Your task to perform on an android device: turn smart compose on in the gmail app Image 0: 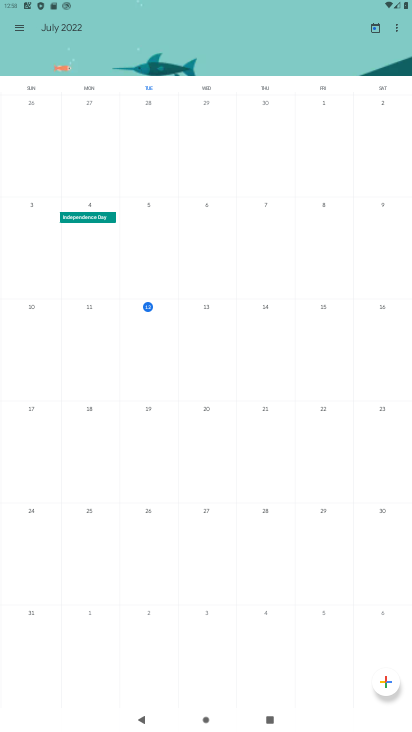
Step 0: press home button
Your task to perform on an android device: turn smart compose on in the gmail app Image 1: 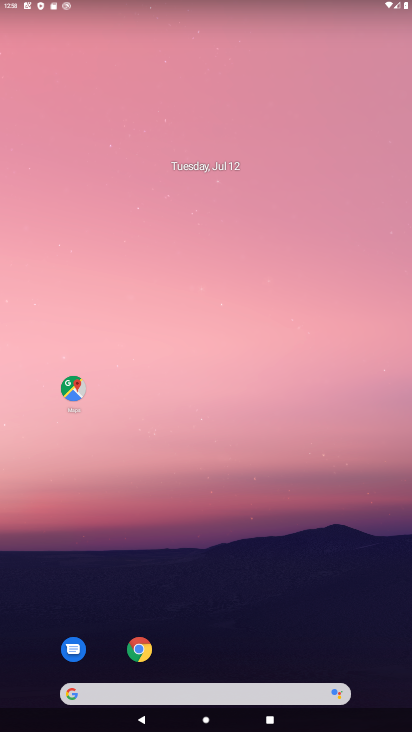
Step 1: drag from (294, 635) to (210, 83)
Your task to perform on an android device: turn smart compose on in the gmail app Image 2: 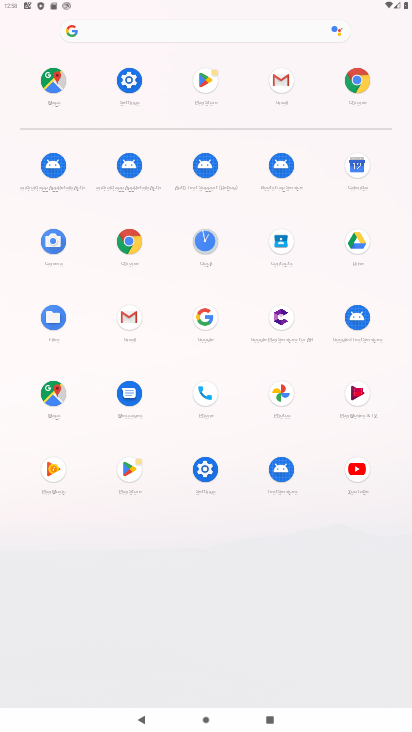
Step 2: click (276, 91)
Your task to perform on an android device: turn smart compose on in the gmail app Image 3: 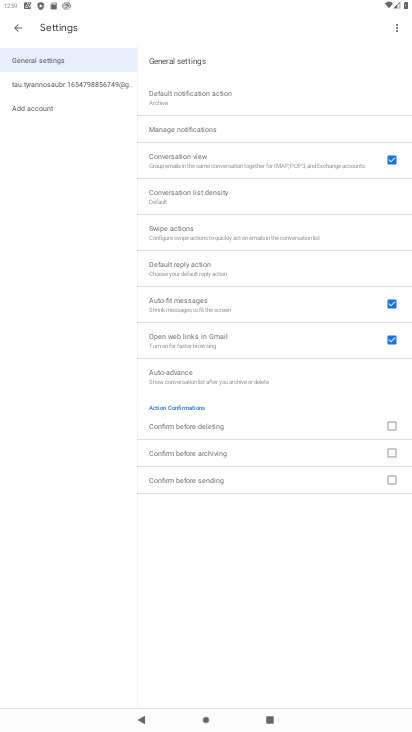
Step 3: click (97, 102)
Your task to perform on an android device: turn smart compose on in the gmail app Image 4: 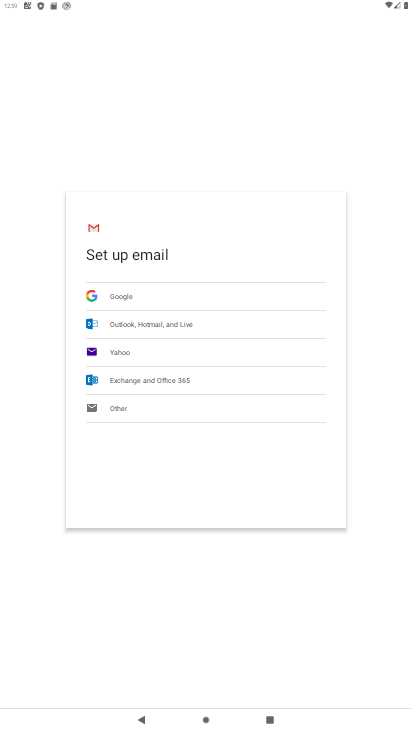
Step 4: press back button
Your task to perform on an android device: turn smart compose on in the gmail app Image 5: 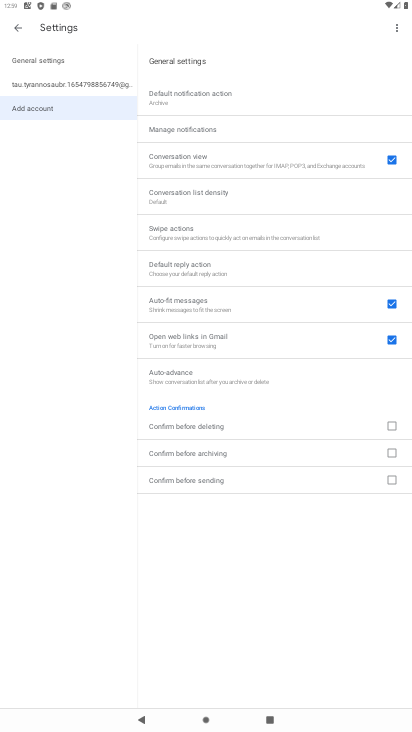
Step 5: click (62, 82)
Your task to perform on an android device: turn smart compose on in the gmail app Image 6: 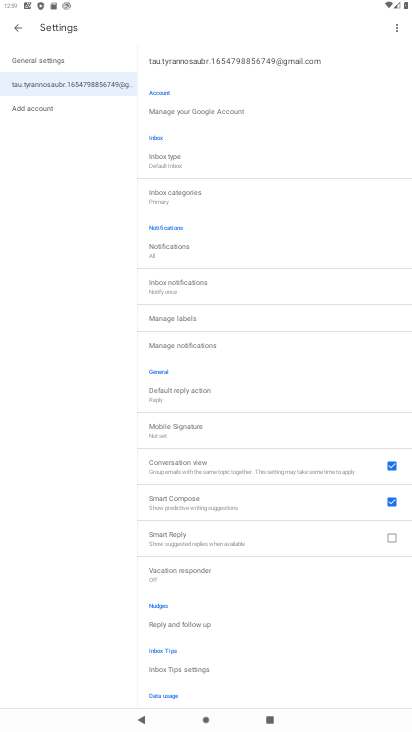
Step 6: click (399, 504)
Your task to perform on an android device: turn smart compose on in the gmail app Image 7: 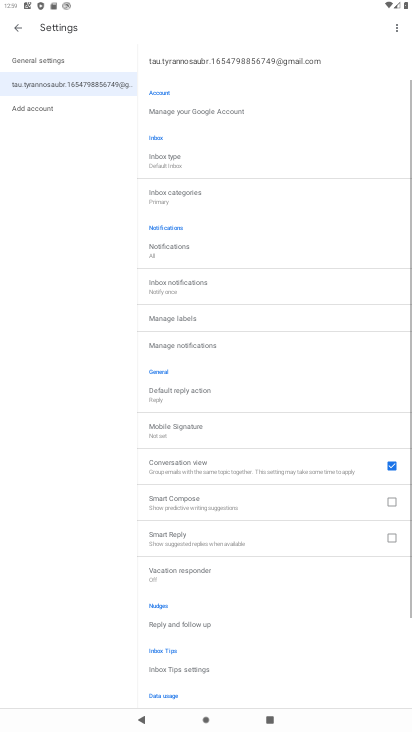
Step 7: task complete